Your task to perform on an android device: open app "Indeed Job Search" (install if not already installed) Image 0: 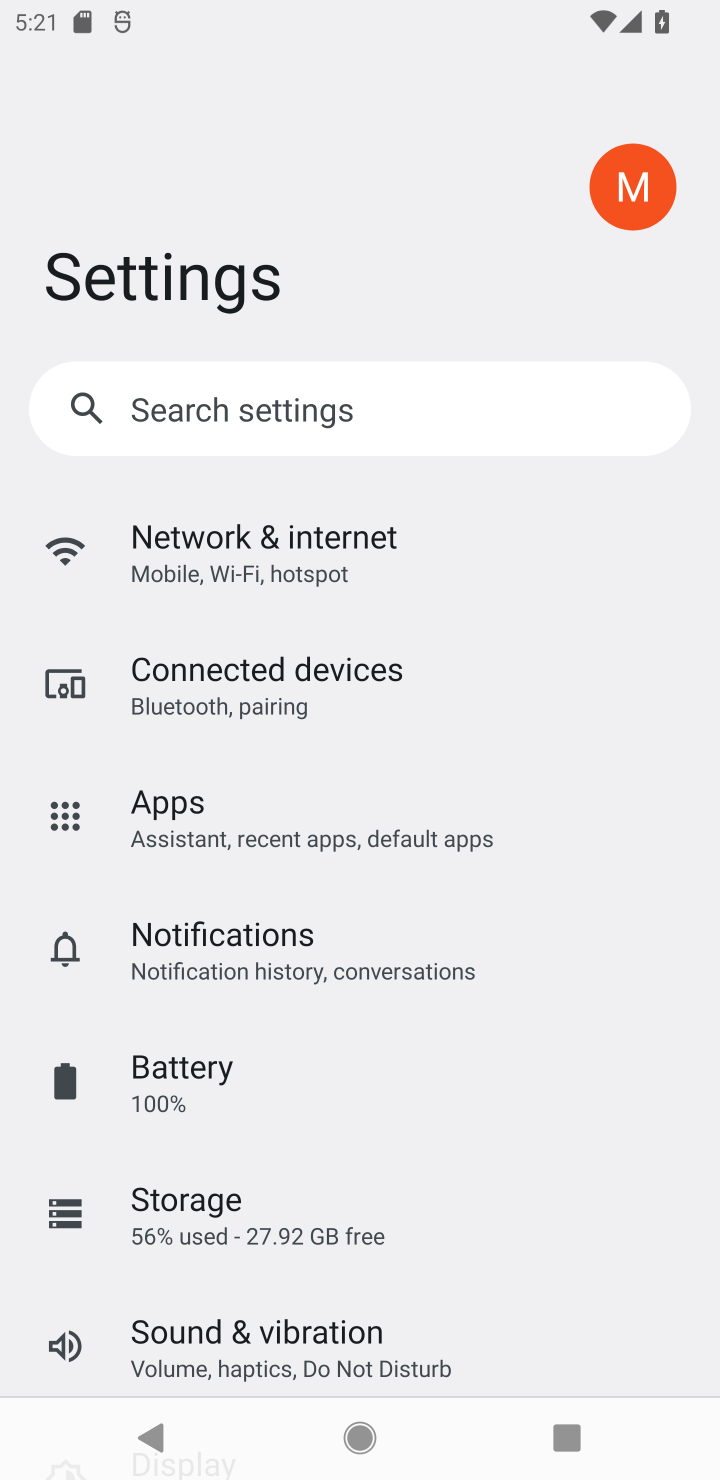
Step 0: press home button
Your task to perform on an android device: open app "Indeed Job Search" (install if not already installed) Image 1: 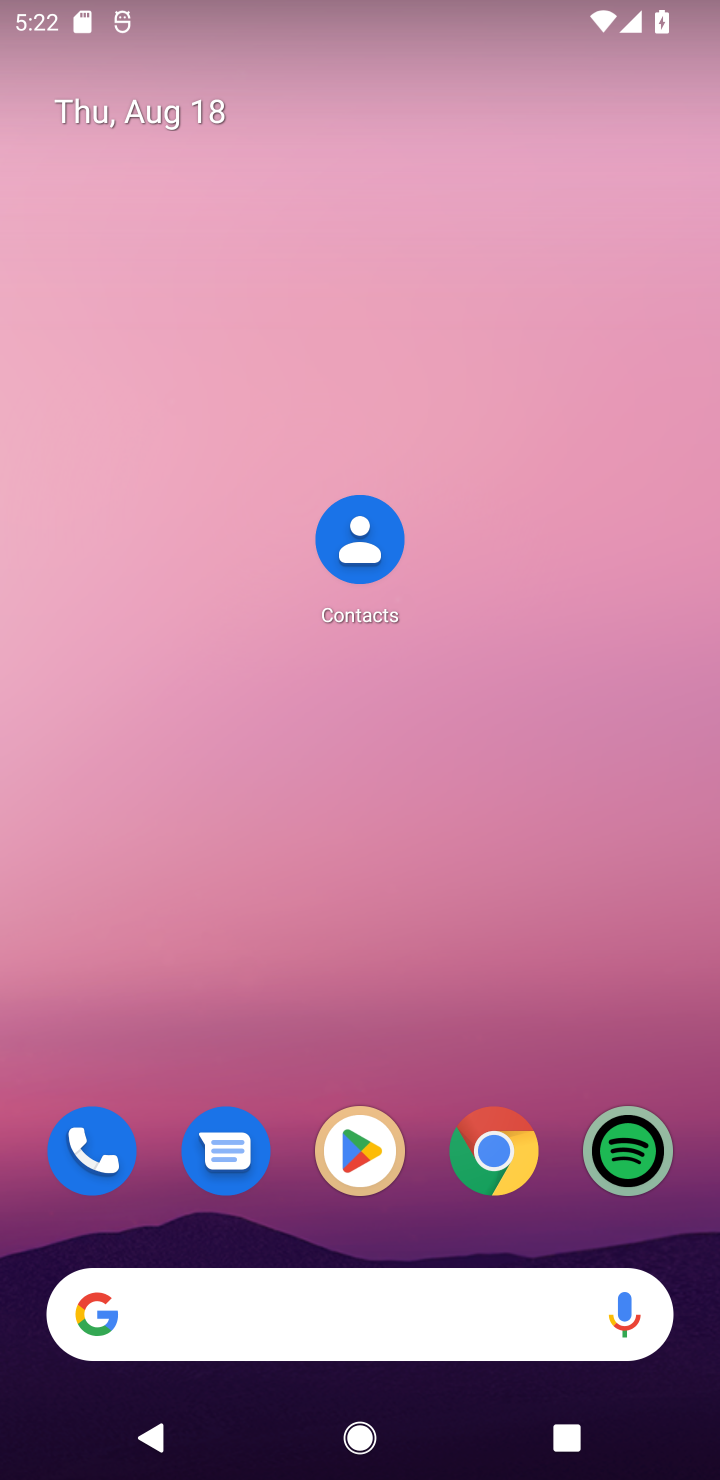
Step 1: click (378, 1162)
Your task to perform on an android device: open app "Indeed Job Search" (install if not already installed) Image 2: 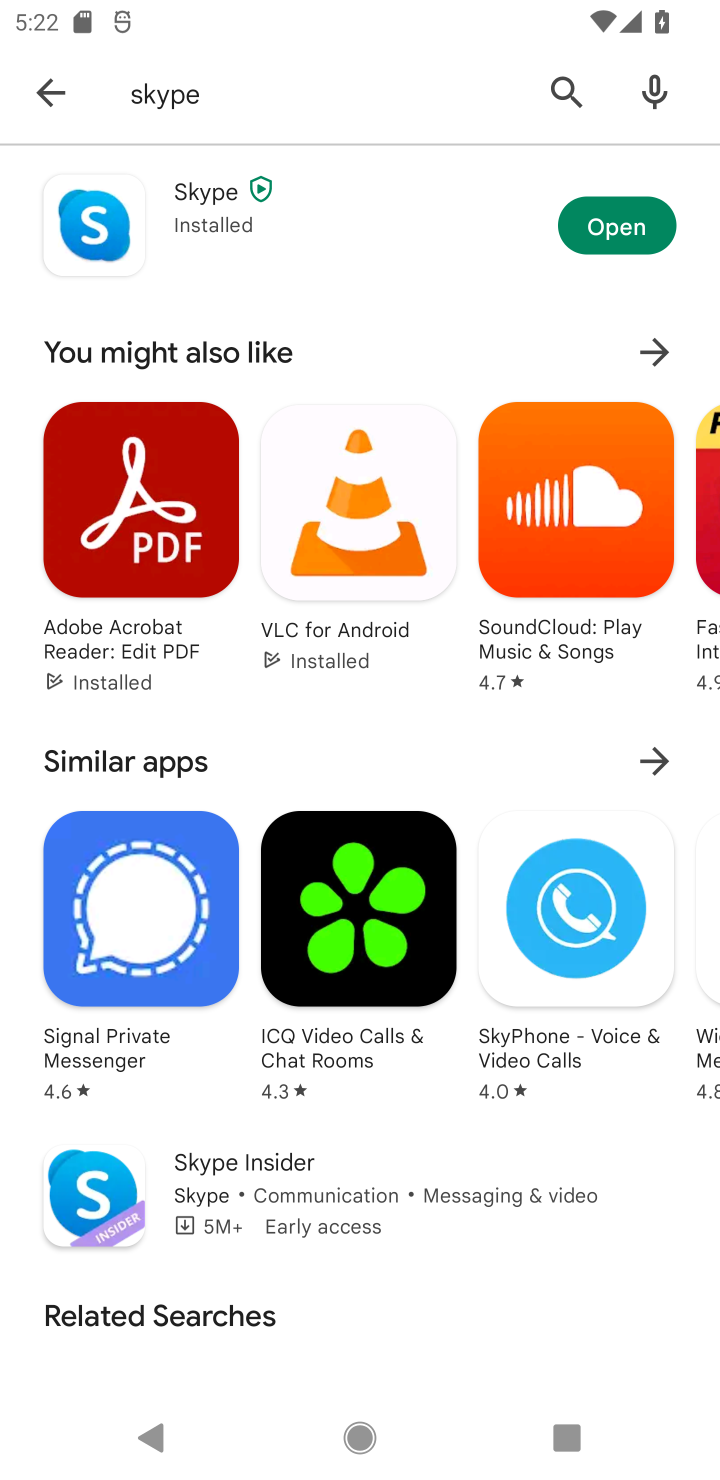
Step 2: click (566, 97)
Your task to perform on an android device: open app "Indeed Job Search" (install if not already installed) Image 3: 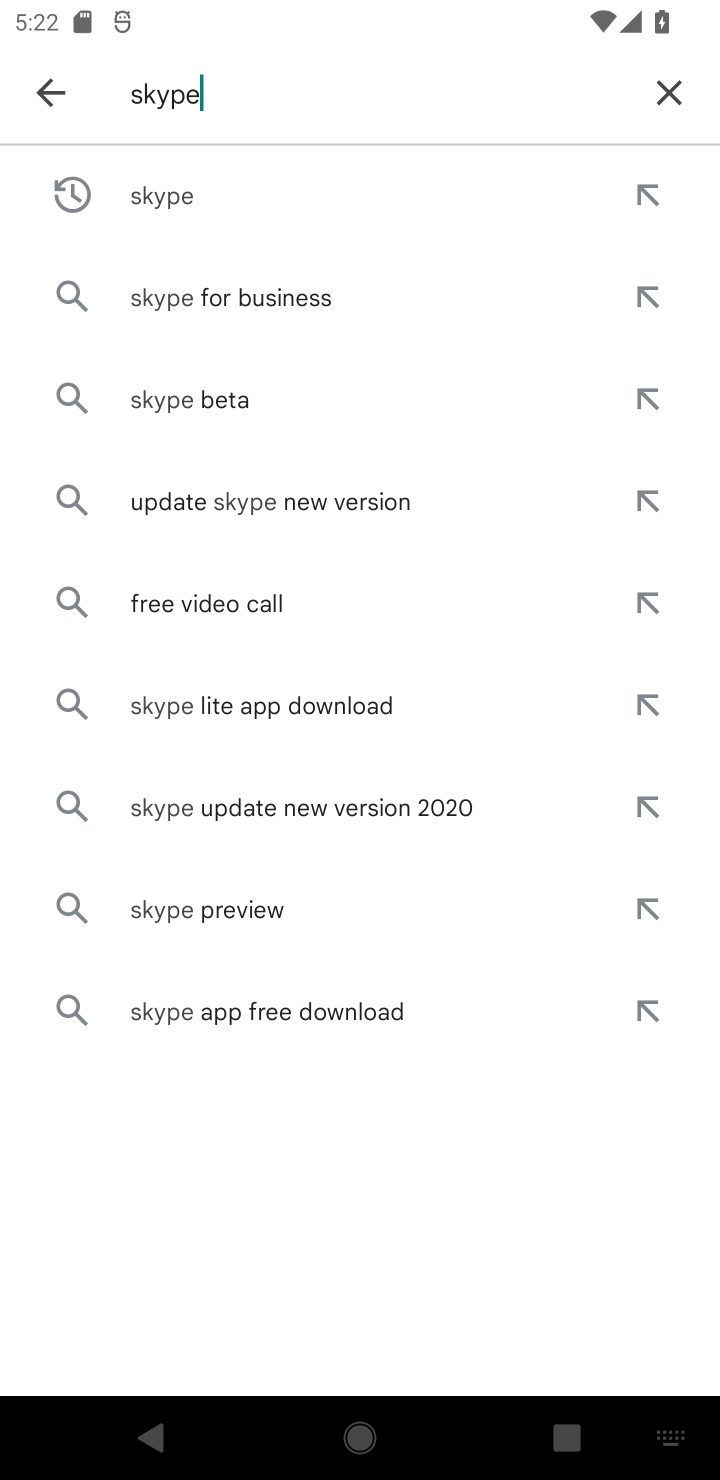
Step 3: click (659, 85)
Your task to perform on an android device: open app "Indeed Job Search" (install if not already installed) Image 4: 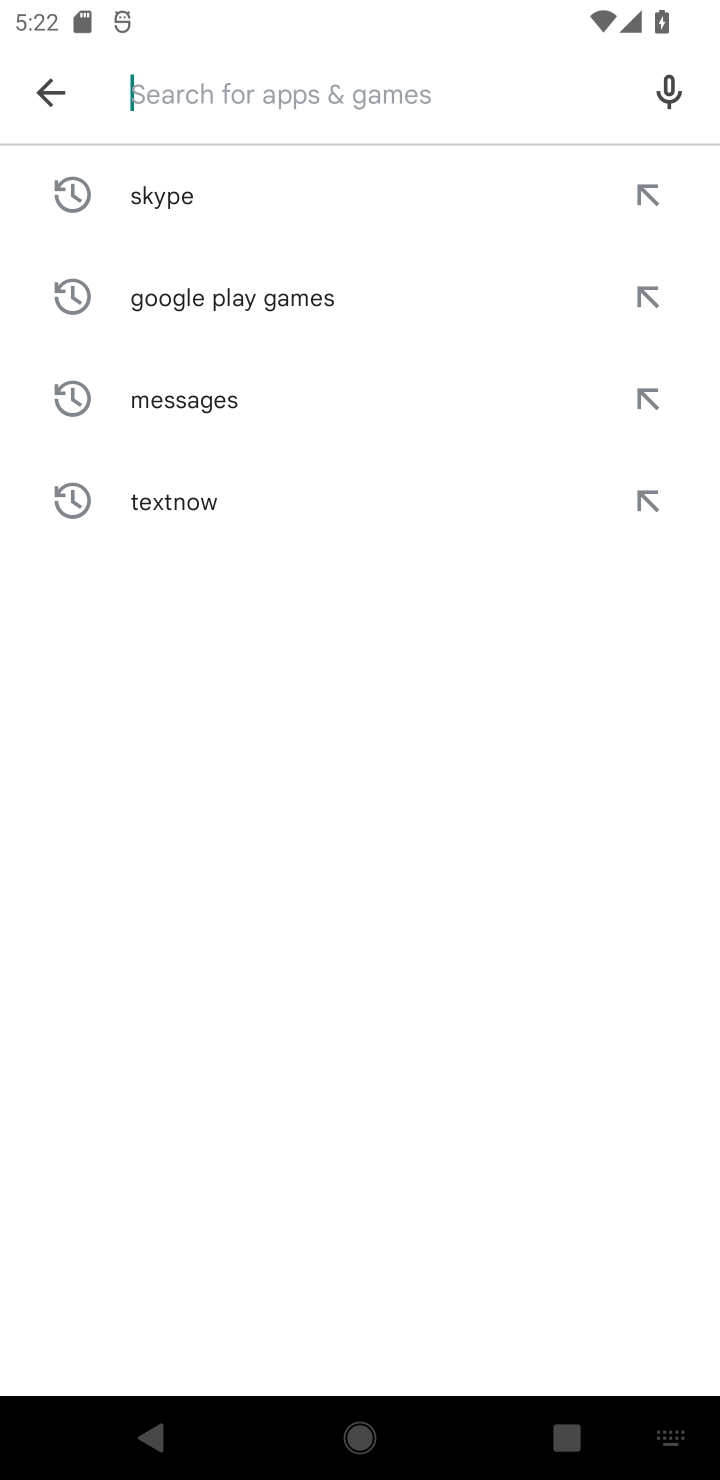
Step 4: type "indeed"
Your task to perform on an android device: open app "Indeed Job Search" (install if not already installed) Image 5: 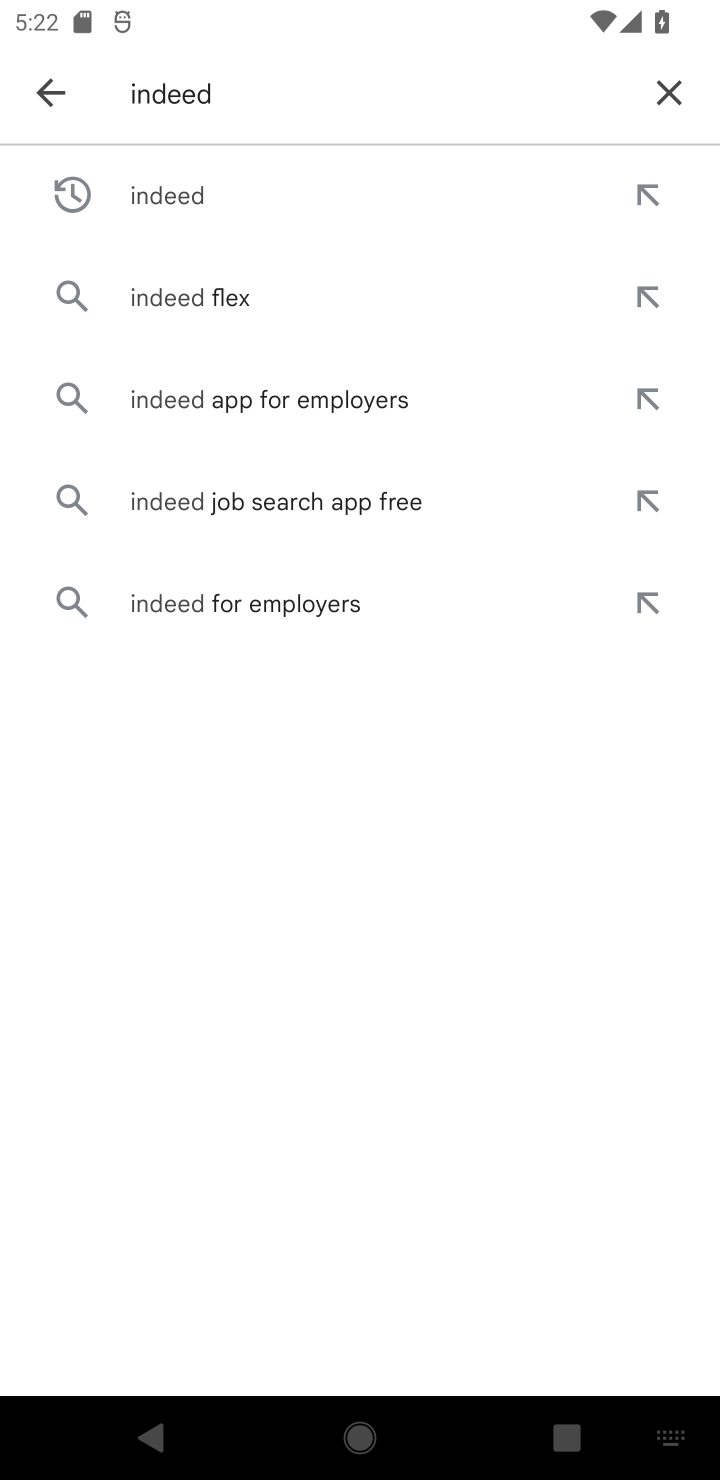
Step 5: click (322, 210)
Your task to perform on an android device: open app "Indeed Job Search" (install if not already installed) Image 6: 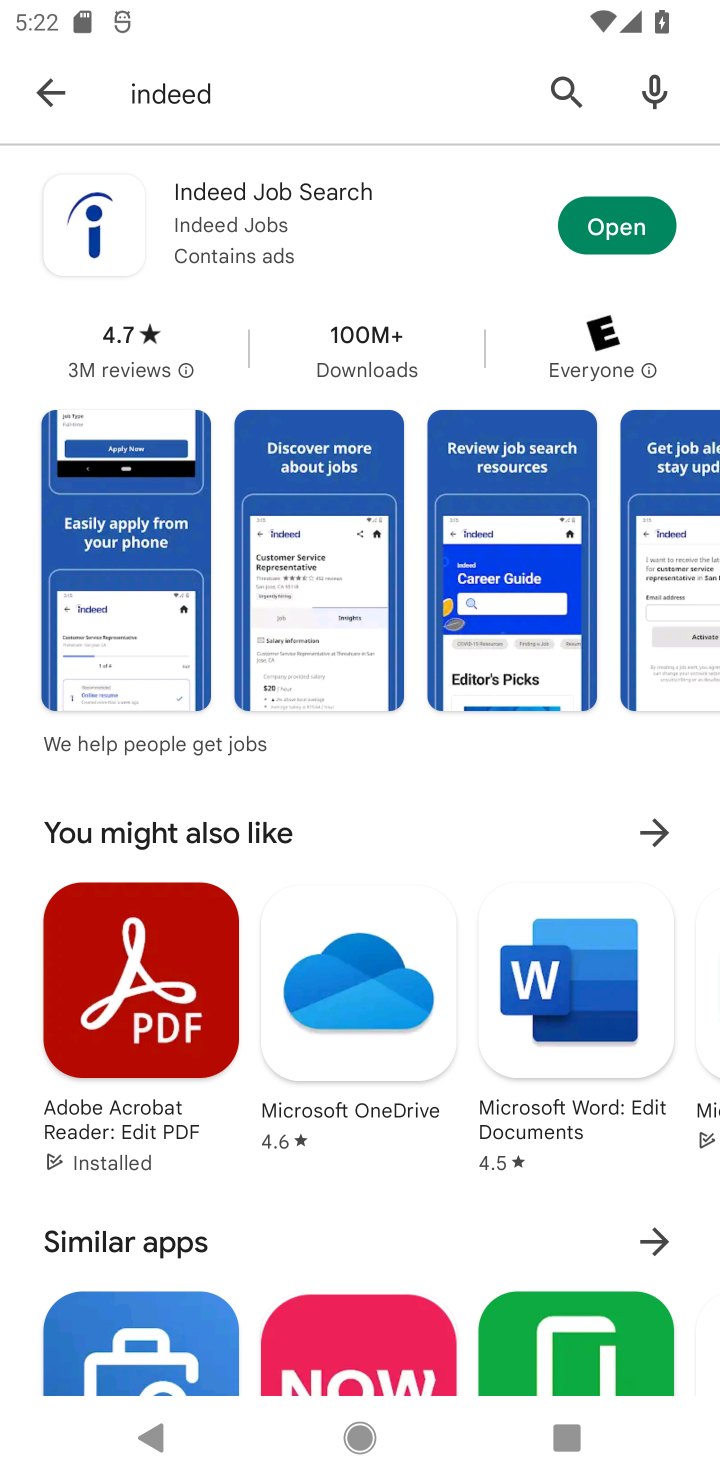
Step 6: click (577, 216)
Your task to perform on an android device: open app "Indeed Job Search" (install if not already installed) Image 7: 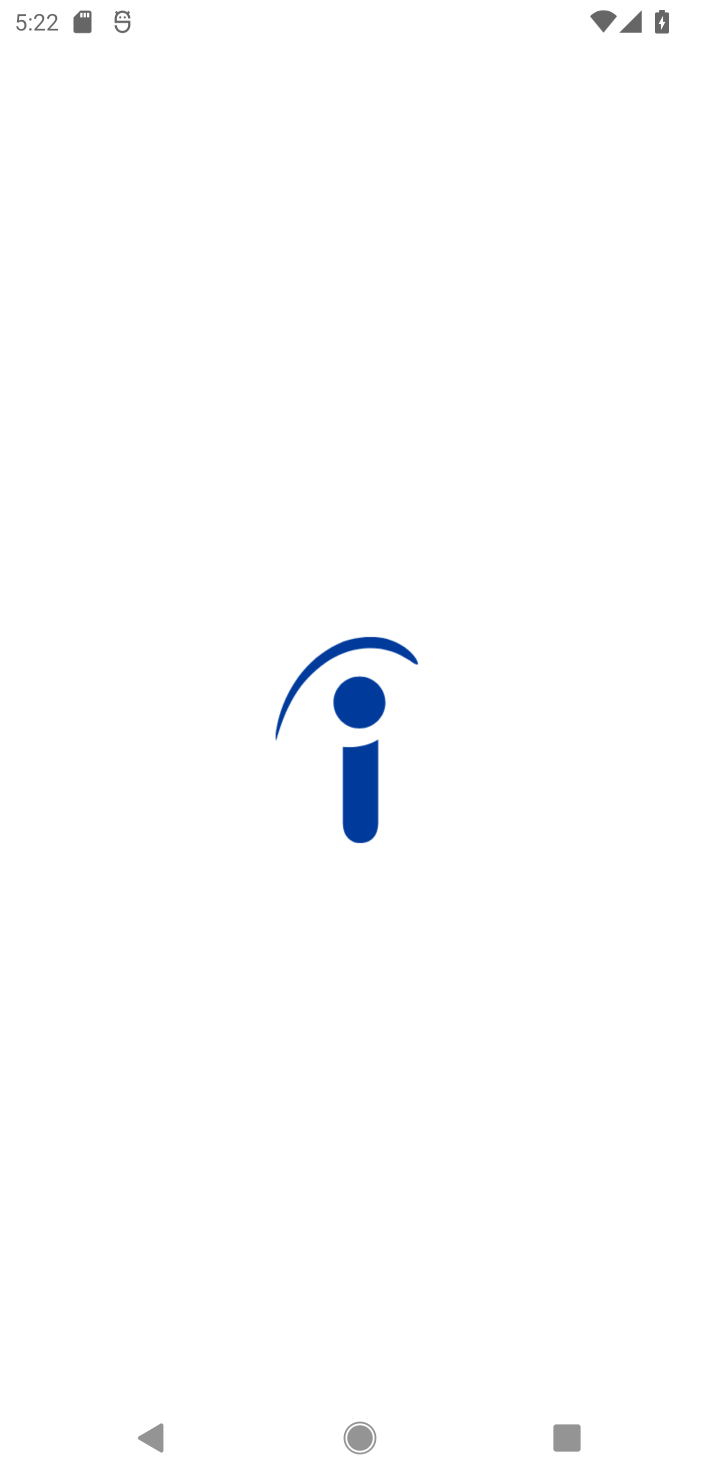
Step 7: task complete